Your task to perform on an android device: snooze an email in the gmail app Image 0: 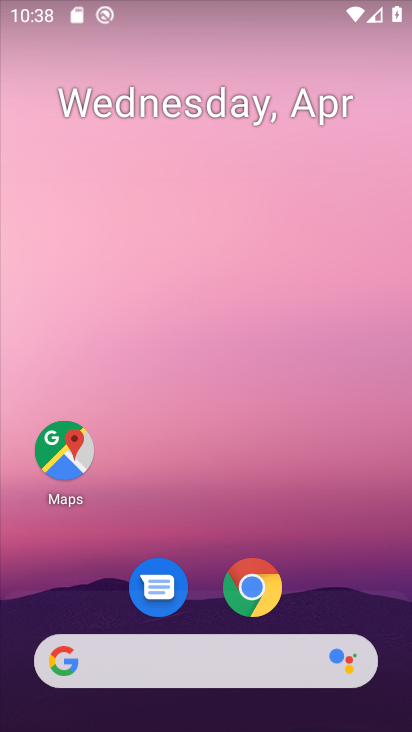
Step 0: drag from (258, 343) to (307, 17)
Your task to perform on an android device: snooze an email in the gmail app Image 1: 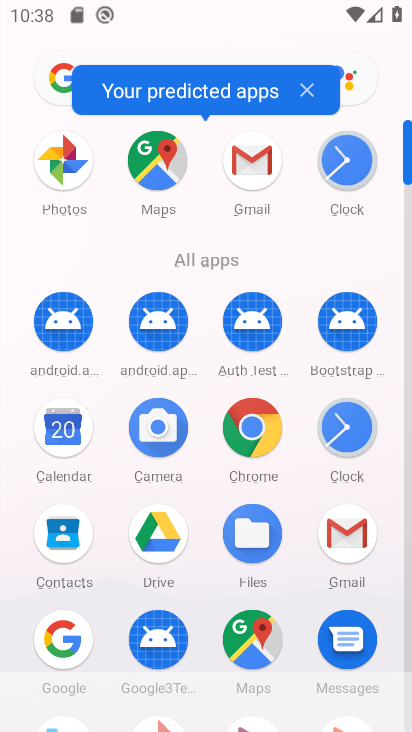
Step 1: click (264, 148)
Your task to perform on an android device: snooze an email in the gmail app Image 2: 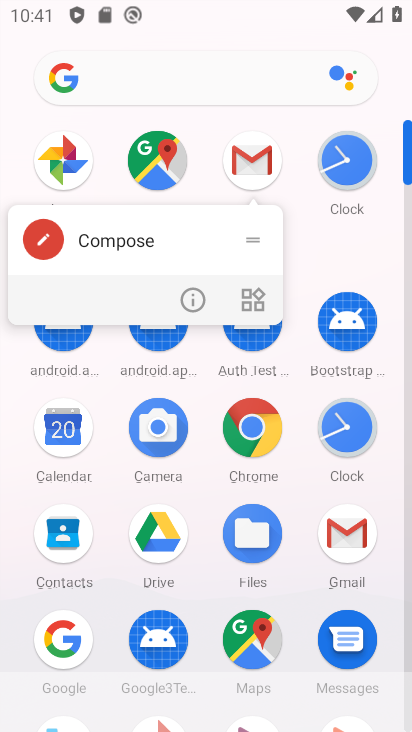
Step 2: click (254, 147)
Your task to perform on an android device: snooze an email in the gmail app Image 3: 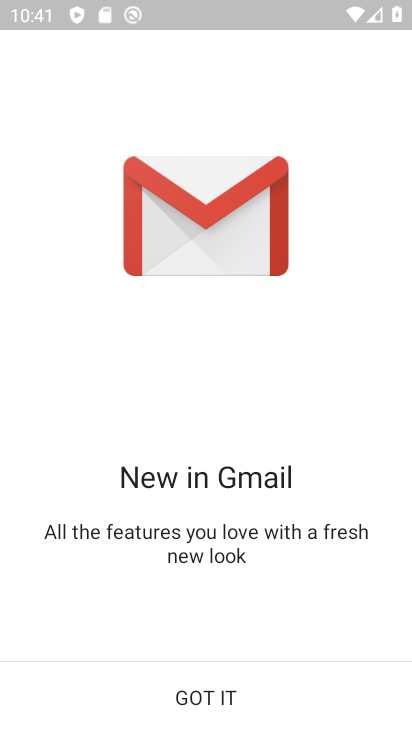
Step 3: click (213, 681)
Your task to perform on an android device: snooze an email in the gmail app Image 4: 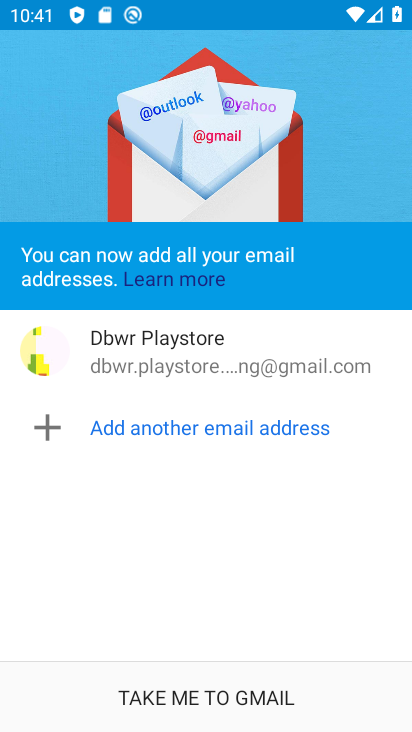
Step 4: click (207, 700)
Your task to perform on an android device: snooze an email in the gmail app Image 5: 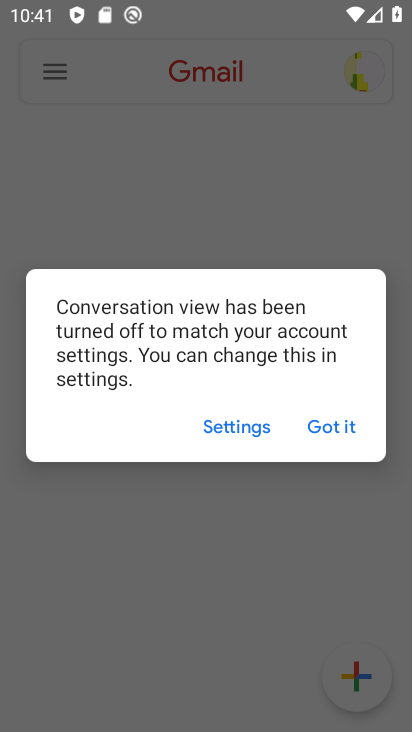
Step 5: click (342, 430)
Your task to perform on an android device: snooze an email in the gmail app Image 6: 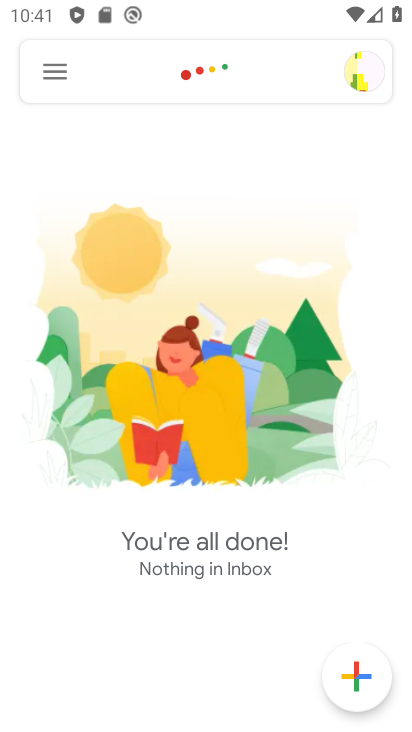
Step 6: click (61, 68)
Your task to perform on an android device: snooze an email in the gmail app Image 7: 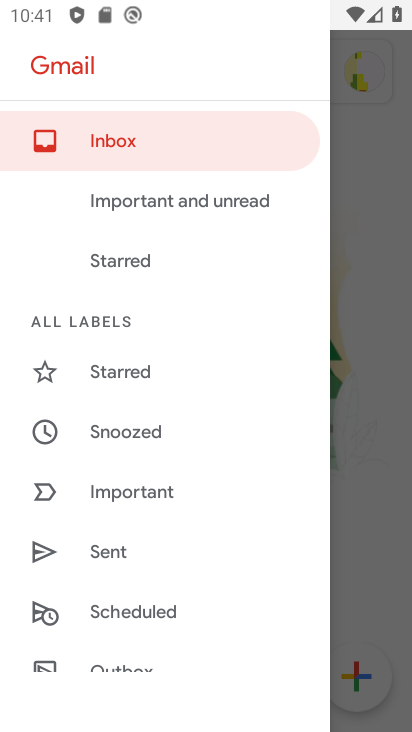
Step 7: drag from (137, 632) to (211, 149)
Your task to perform on an android device: snooze an email in the gmail app Image 8: 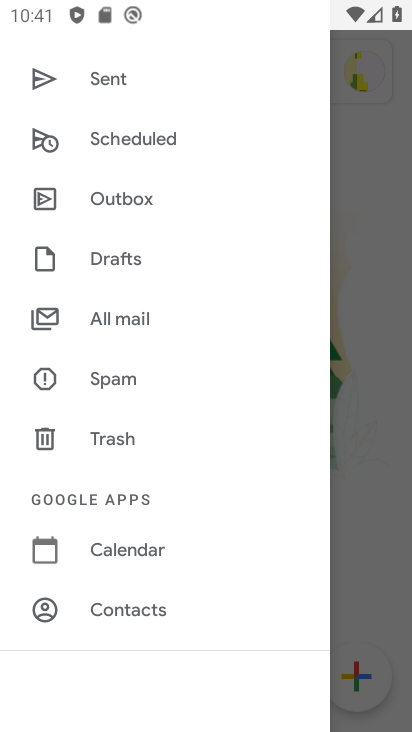
Step 8: click (119, 316)
Your task to perform on an android device: snooze an email in the gmail app Image 9: 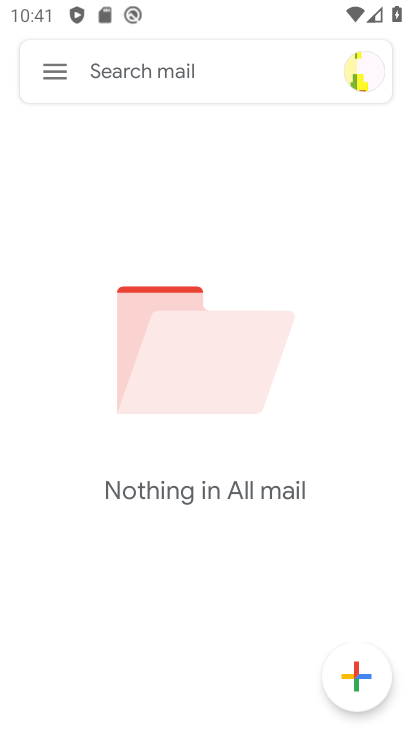
Step 9: task complete